Your task to perform on an android device: move a message to another label in the gmail app Image 0: 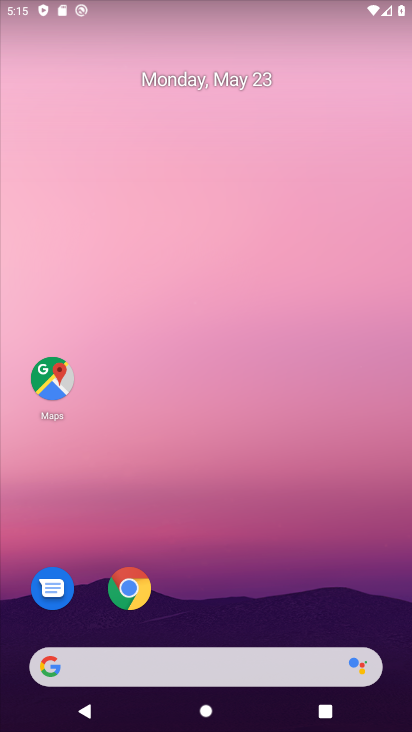
Step 0: drag from (303, 527) to (83, 2)
Your task to perform on an android device: move a message to another label in the gmail app Image 1: 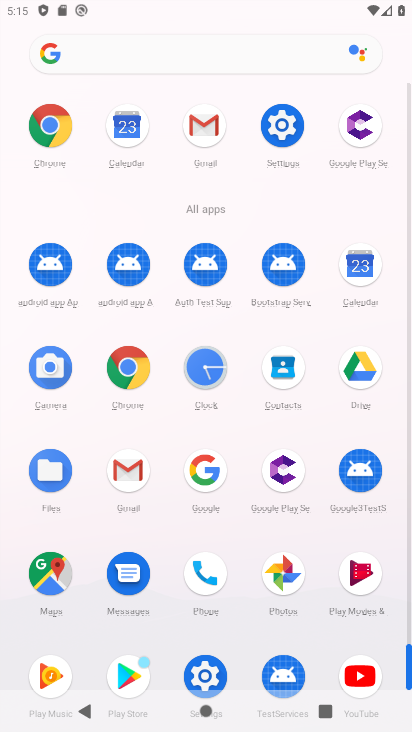
Step 1: drag from (17, 550) to (17, 226)
Your task to perform on an android device: move a message to another label in the gmail app Image 2: 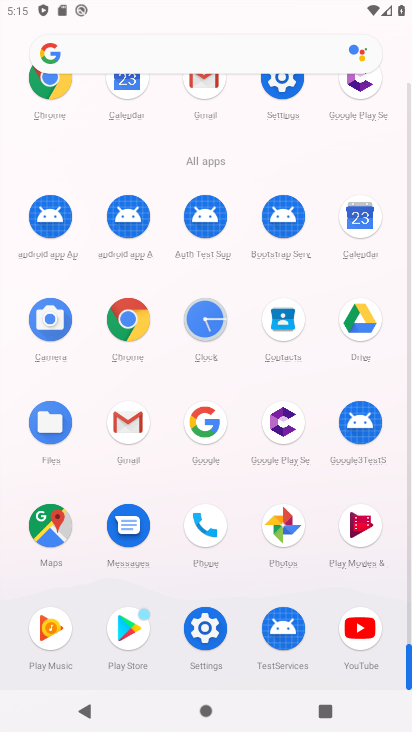
Step 2: drag from (23, 543) to (13, 184)
Your task to perform on an android device: move a message to another label in the gmail app Image 3: 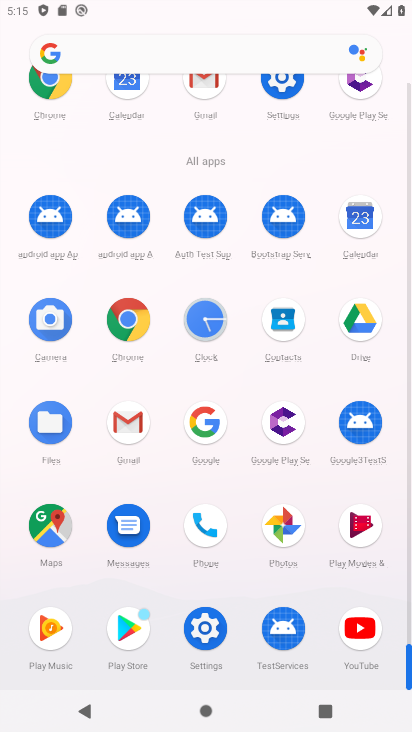
Step 3: click (123, 418)
Your task to perform on an android device: move a message to another label in the gmail app Image 4: 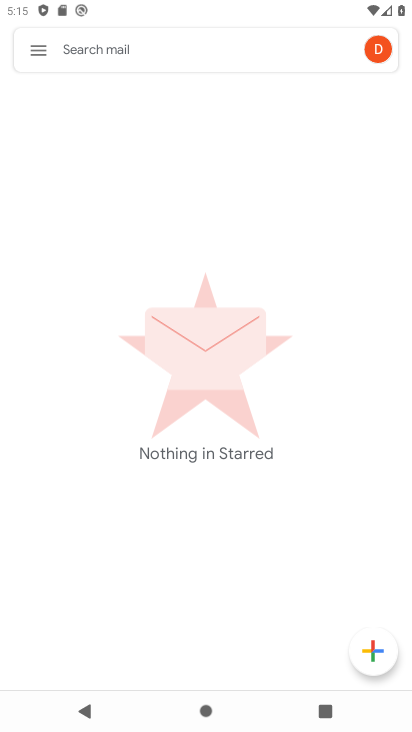
Step 4: click (34, 50)
Your task to perform on an android device: move a message to another label in the gmail app Image 5: 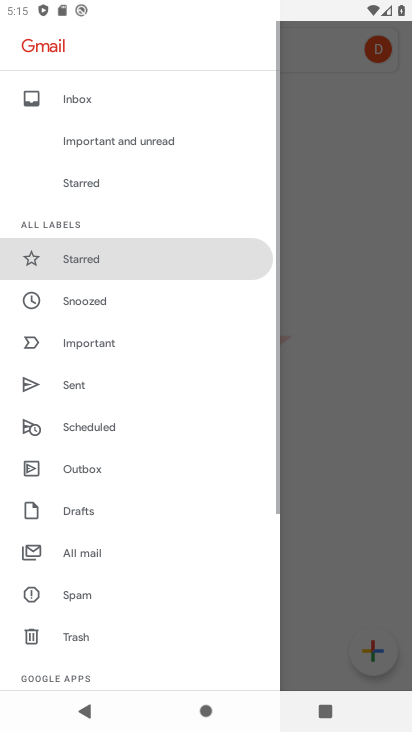
Step 5: drag from (139, 508) to (189, 120)
Your task to perform on an android device: move a message to another label in the gmail app Image 6: 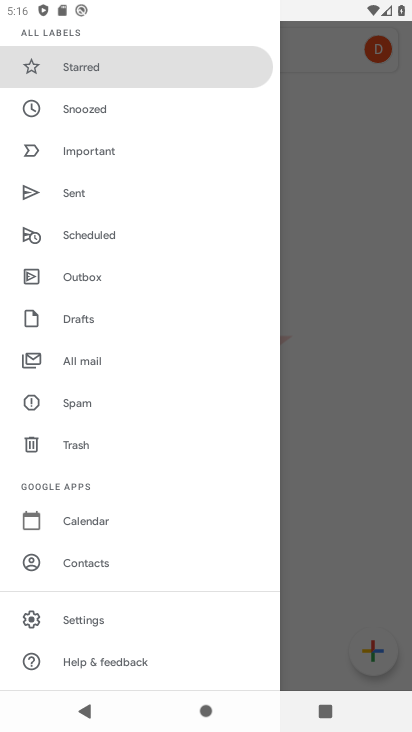
Step 6: drag from (131, 510) to (161, 131)
Your task to perform on an android device: move a message to another label in the gmail app Image 7: 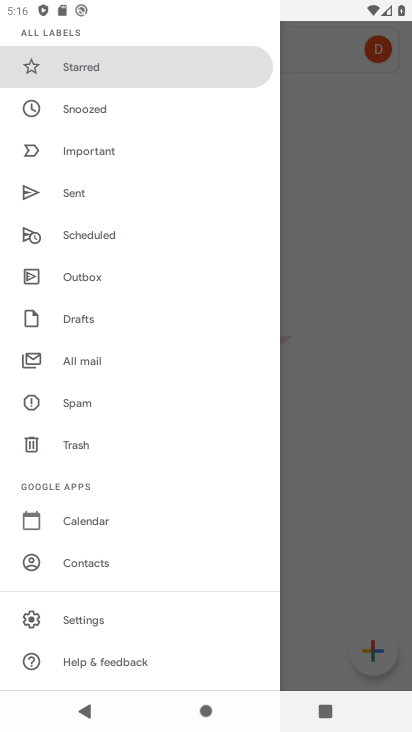
Step 7: drag from (159, 158) to (157, 656)
Your task to perform on an android device: move a message to another label in the gmail app Image 8: 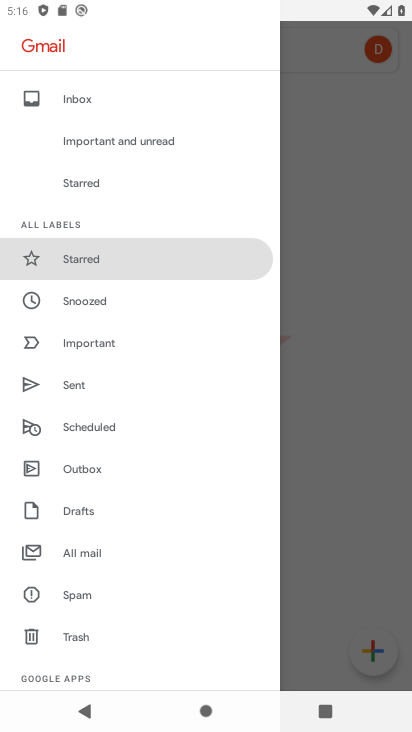
Step 8: drag from (112, 490) to (169, 121)
Your task to perform on an android device: move a message to another label in the gmail app Image 9: 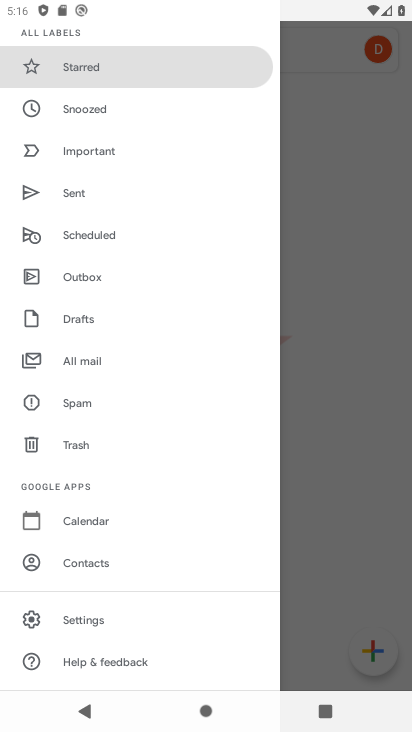
Step 9: click (99, 353)
Your task to perform on an android device: move a message to another label in the gmail app Image 10: 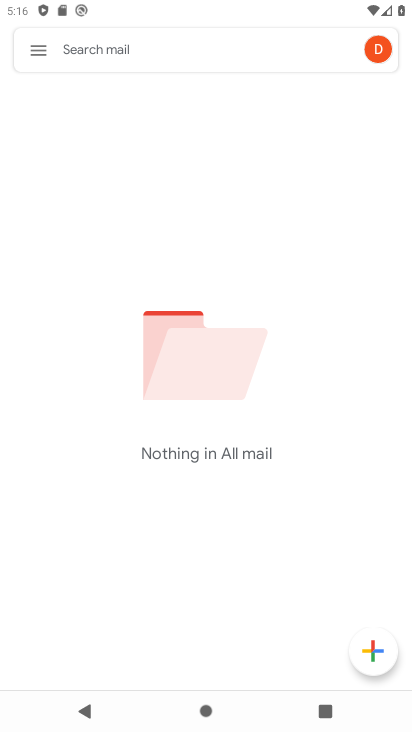
Step 10: click (43, 45)
Your task to perform on an android device: move a message to another label in the gmail app Image 11: 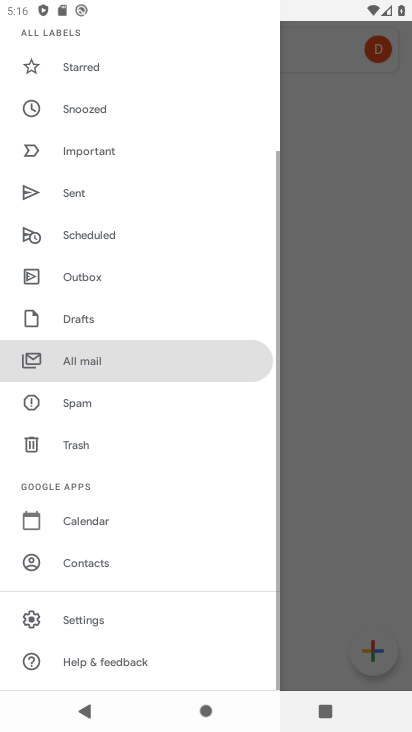
Step 11: drag from (117, 149) to (132, 598)
Your task to perform on an android device: move a message to another label in the gmail app Image 12: 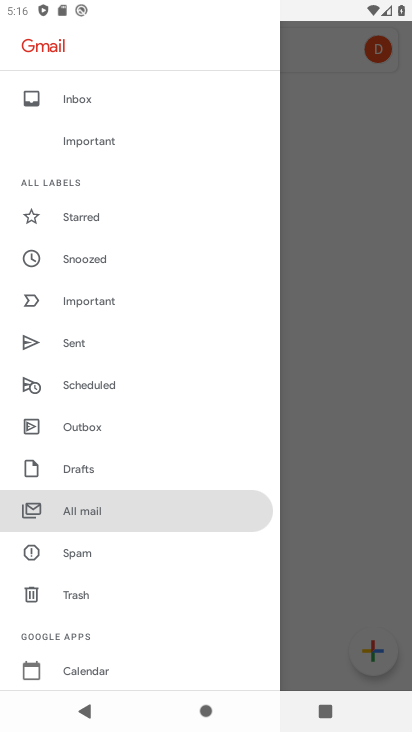
Step 12: click (104, 211)
Your task to perform on an android device: move a message to another label in the gmail app Image 13: 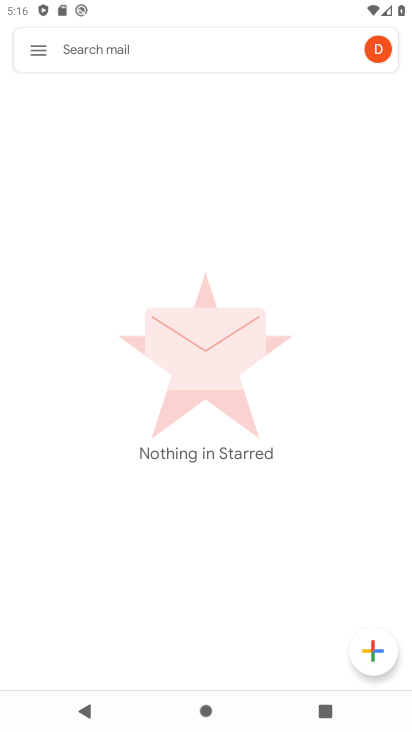
Step 13: click (38, 50)
Your task to perform on an android device: move a message to another label in the gmail app Image 14: 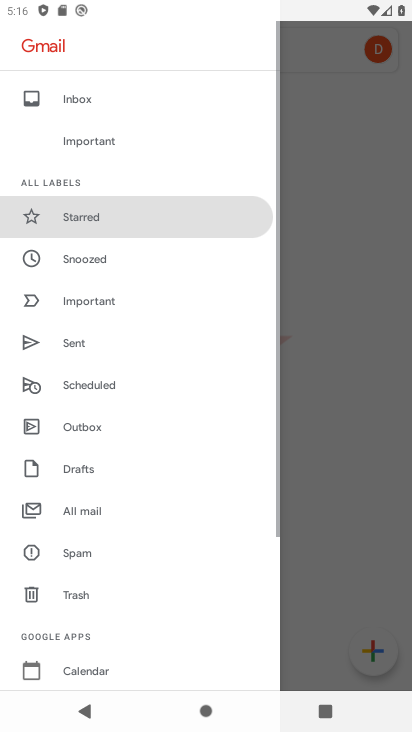
Step 14: click (113, 94)
Your task to perform on an android device: move a message to another label in the gmail app Image 15: 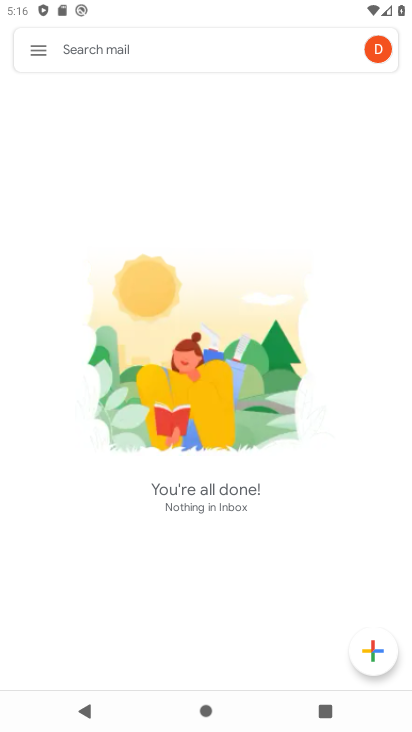
Step 15: click (42, 47)
Your task to perform on an android device: move a message to another label in the gmail app Image 16: 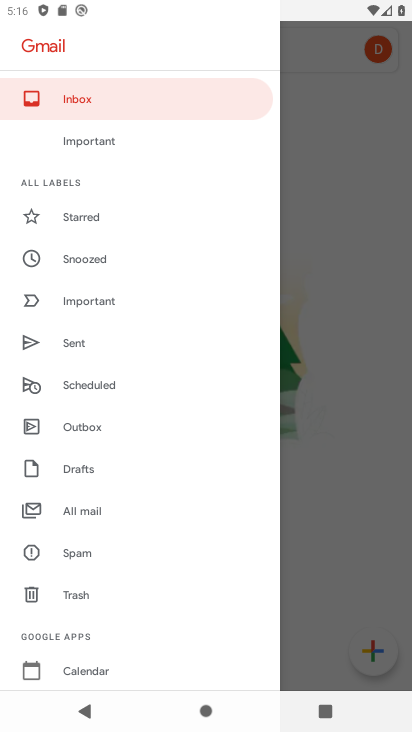
Step 16: click (98, 510)
Your task to perform on an android device: move a message to another label in the gmail app Image 17: 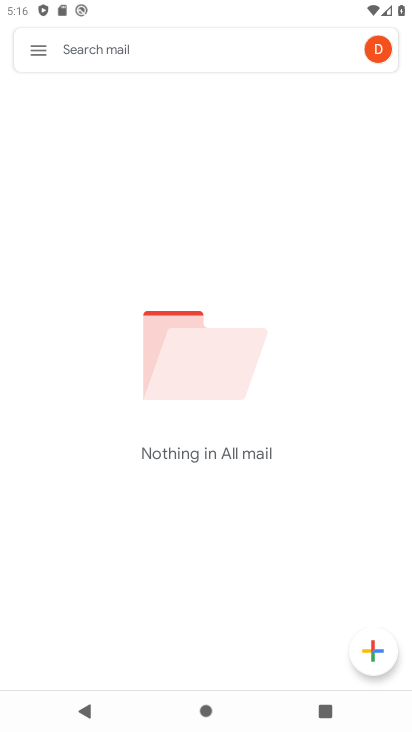
Step 17: click (45, 51)
Your task to perform on an android device: move a message to another label in the gmail app Image 18: 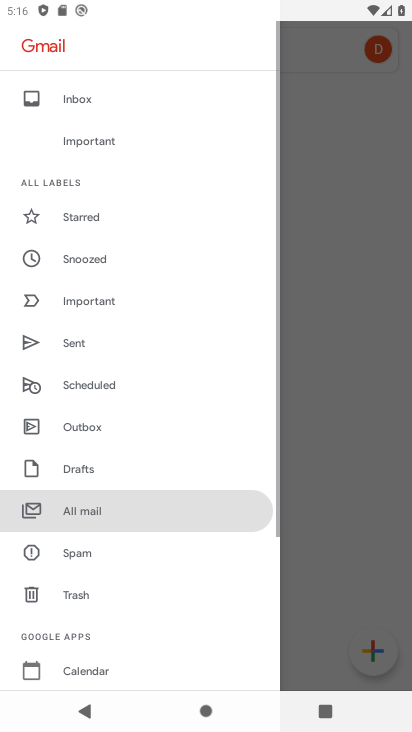
Step 18: drag from (171, 185) to (174, 547)
Your task to perform on an android device: move a message to another label in the gmail app Image 19: 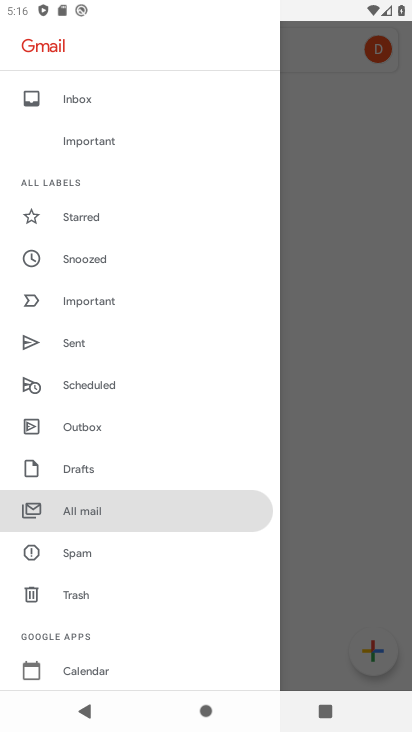
Step 19: click (102, 211)
Your task to perform on an android device: move a message to another label in the gmail app Image 20: 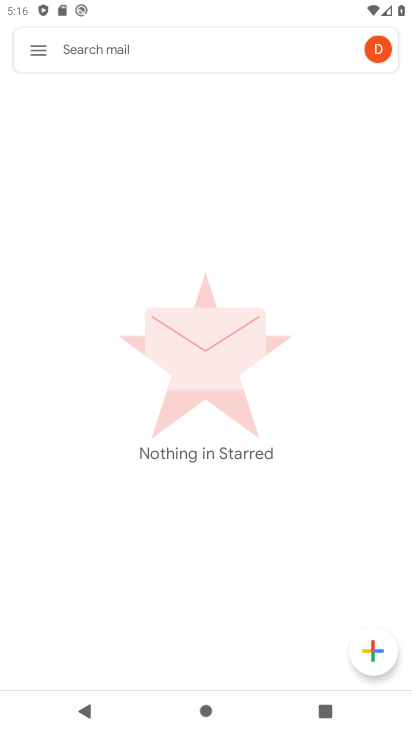
Step 20: click (37, 50)
Your task to perform on an android device: move a message to another label in the gmail app Image 21: 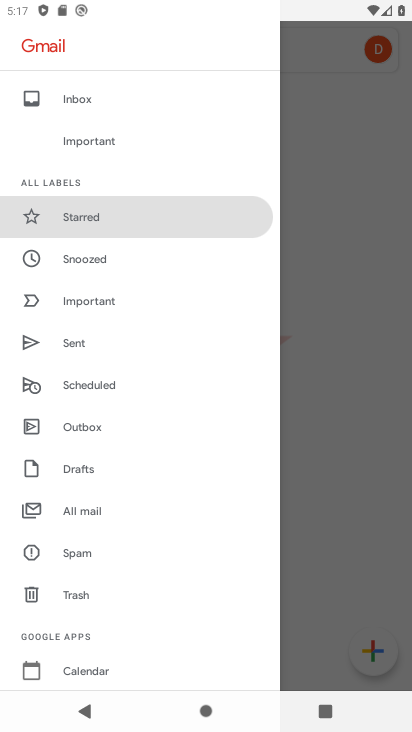
Step 21: drag from (138, 434) to (140, 110)
Your task to perform on an android device: move a message to another label in the gmail app Image 22: 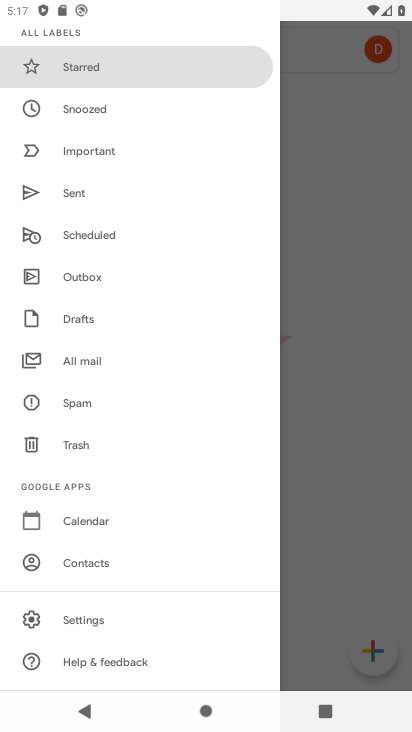
Step 22: click (103, 359)
Your task to perform on an android device: move a message to another label in the gmail app Image 23: 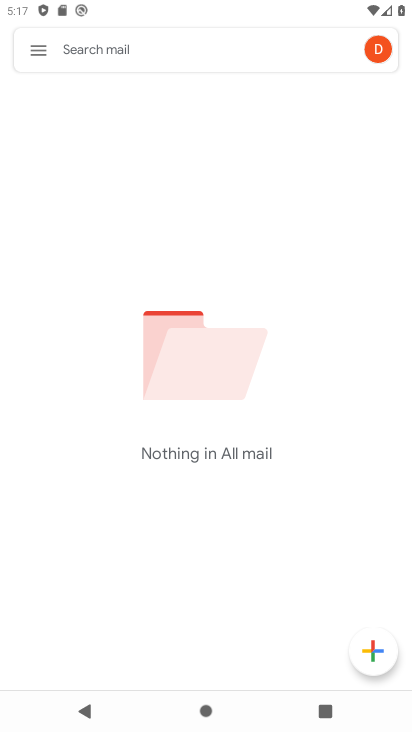
Step 23: task complete